Your task to perform on an android device: turn notification dots on Image 0: 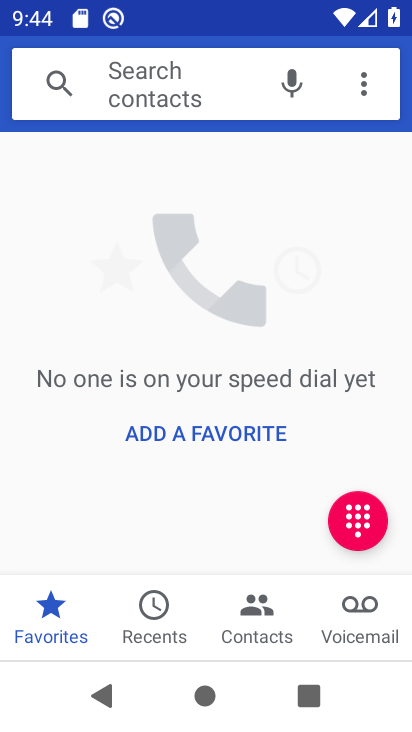
Step 0: press back button
Your task to perform on an android device: turn notification dots on Image 1: 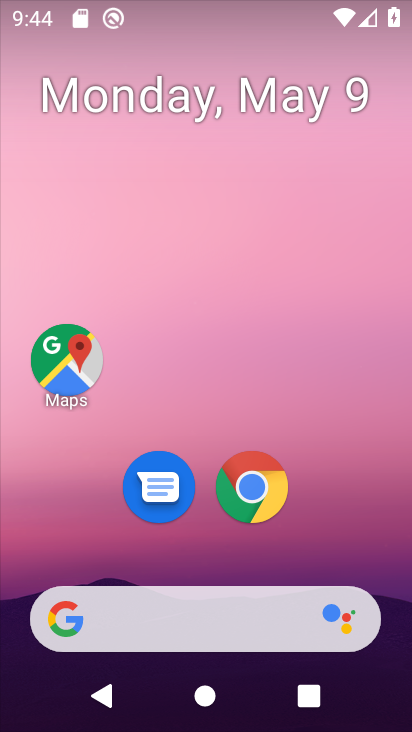
Step 1: drag from (325, 522) to (290, 36)
Your task to perform on an android device: turn notification dots on Image 2: 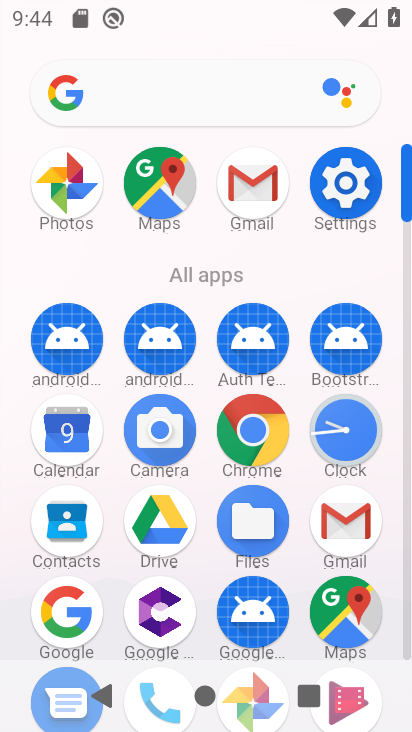
Step 2: drag from (9, 536) to (9, 248)
Your task to perform on an android device: turn notification dots on Image 3: 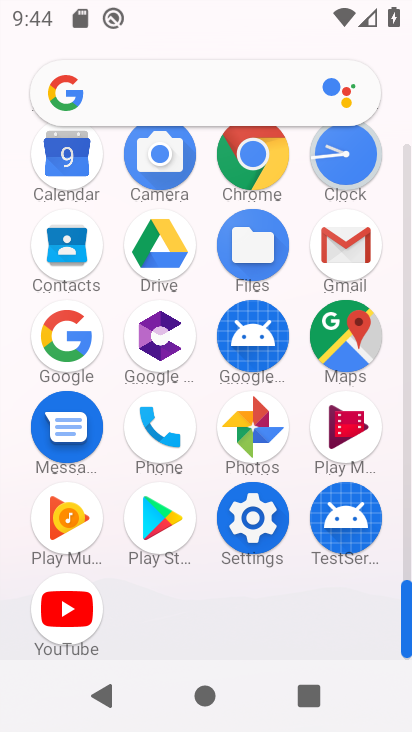
Step 3: click (248, 516)
Your task to perform on an android device: turn notification dots on Image 4: 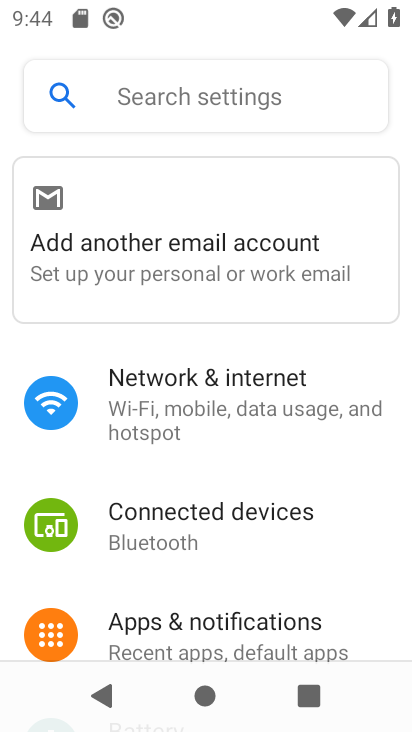
Step 4: drag from (316, 566) to (326, 221)
Your task to perform on an android device: turn notification dots on Image 5: 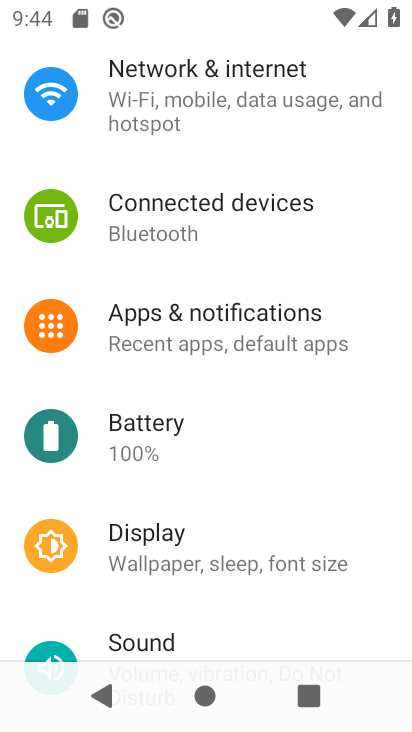
Step 5: drag from (318, 506) to (317, 143)
Your task to perform on an android device: turn notification dots on Image 6: 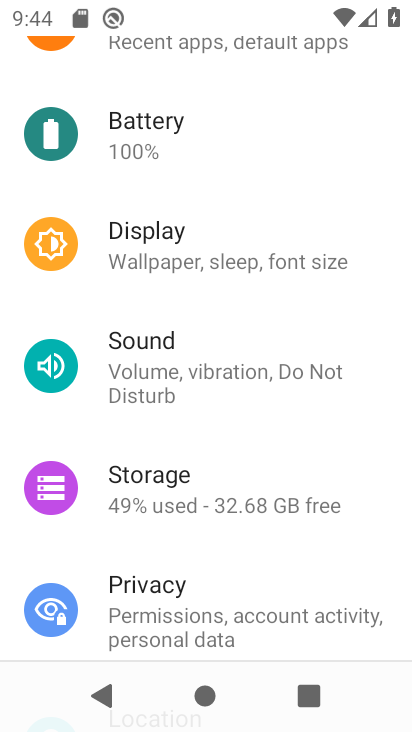
Step 6: drag from (289, 518) to (293, 125)
Your task to perform on an android device: turn notification dots on Image 7: 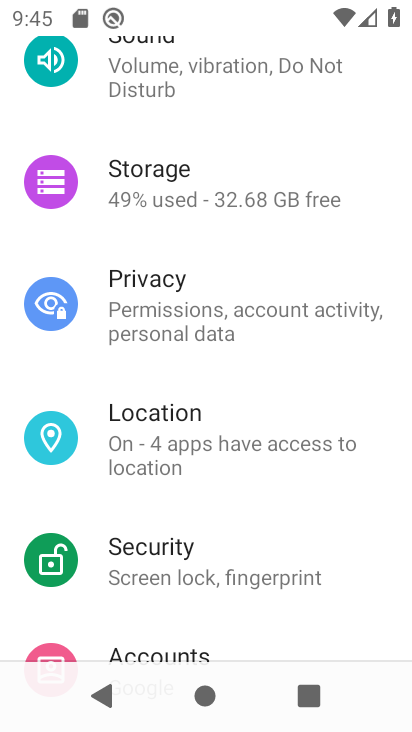
Step 7: drag from (306, 512) to (308, 203)
Your task to perform on an android device: turn notification dots on Image 8: 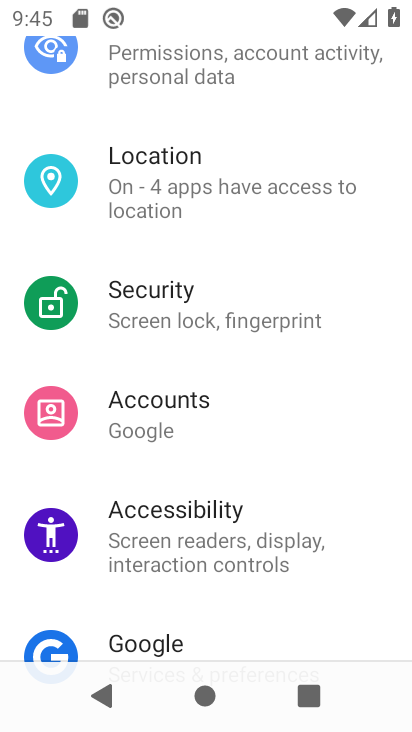
Step 8: drag from (309, 402) to (317, 125)
Your task to perform on an android device: turn notification dots on Image 9: 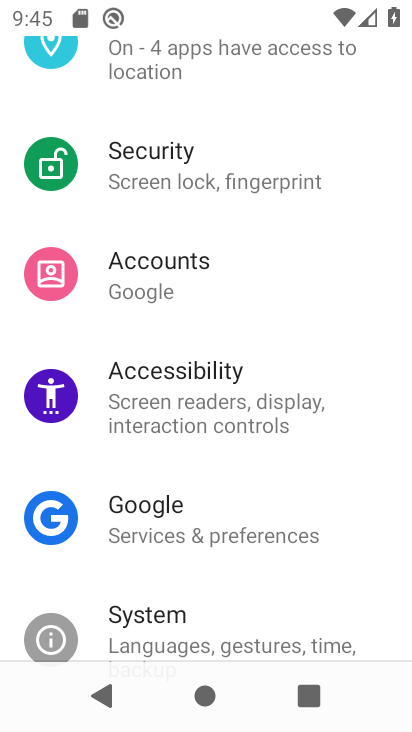
Step 9: drag from (303, 553) to (303, 174)
Your task to perform on an android device: turn notification dots on Image 10: 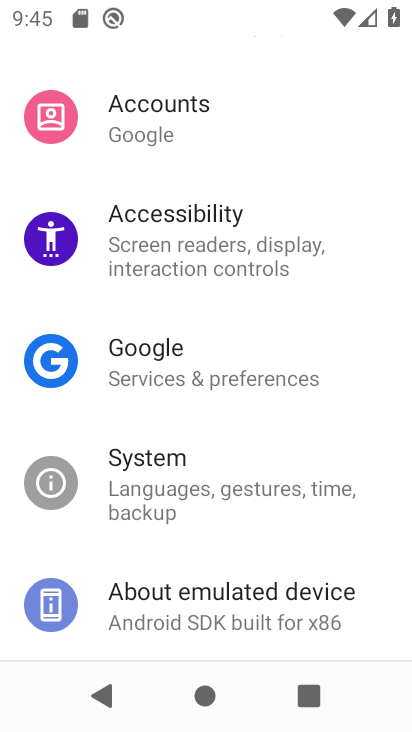
Step 10: drag from (267, 182) to (269, 528)
Your task to perform on an android device: turn notification dots on Image 11: 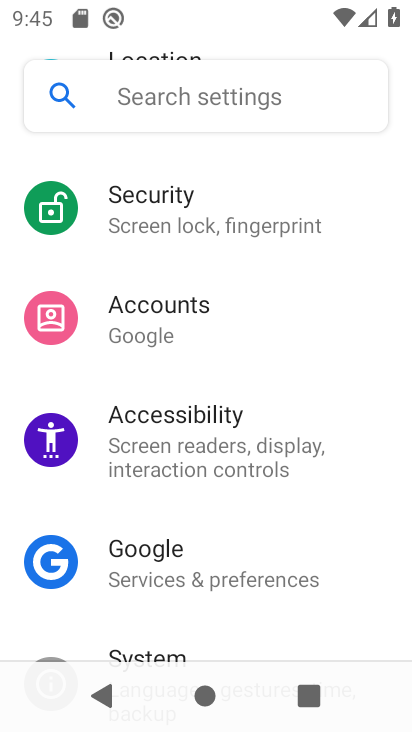
Step 11: drag from (295, 227) to (284, 502)
Your task to perform on an android device: turn notification dots on Image 12: 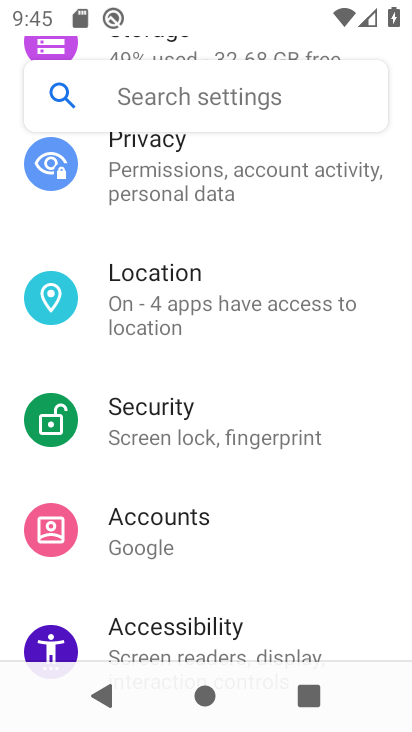
Step 12: drag from (323, 384) to (326, 562)
Your task to perform on an android device: turn notification dots on Image 13: 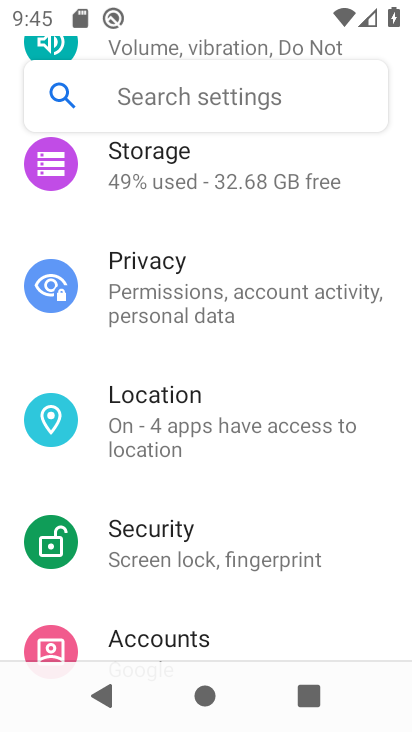
Step 13: drag from (309, 261) to (255, 516)
Your task to perform on an android device: turn notification dots on Image 14: 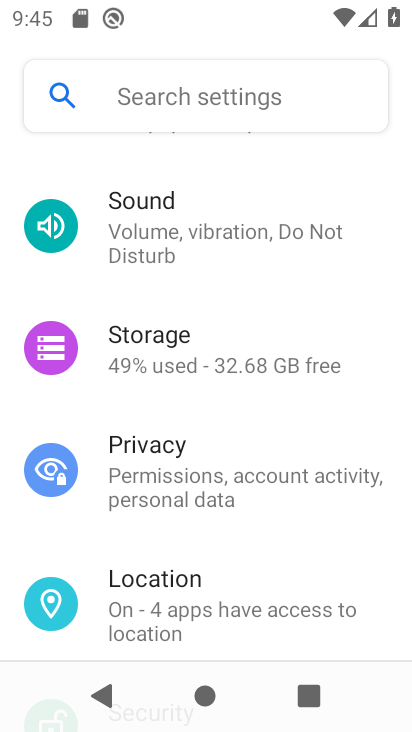
Step 14: drag from (267, 254) to (275, 578)
Your task to perform on an android device: turn notification dots on Image 15: 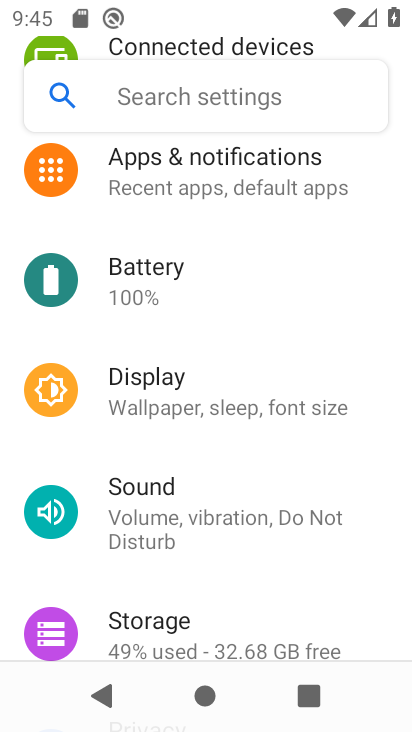
Step 15: click (257, 181)
Your task to perform on an android device: turn notification dots on Image 16: 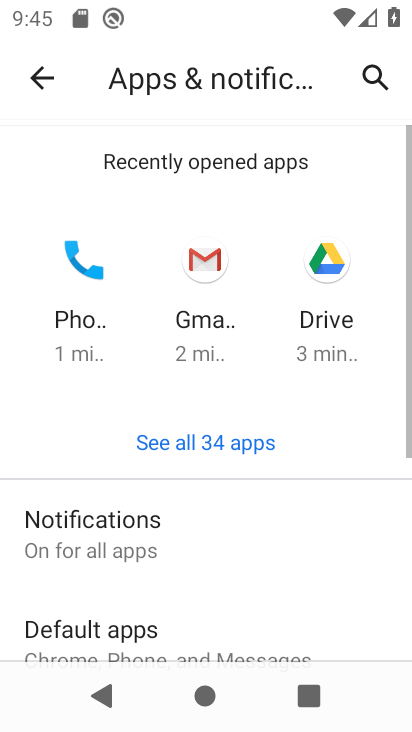
Step 16: drag from (249, 605) to (275, 153)
Your task to perform on an android device: turn notification dots on Image 17: 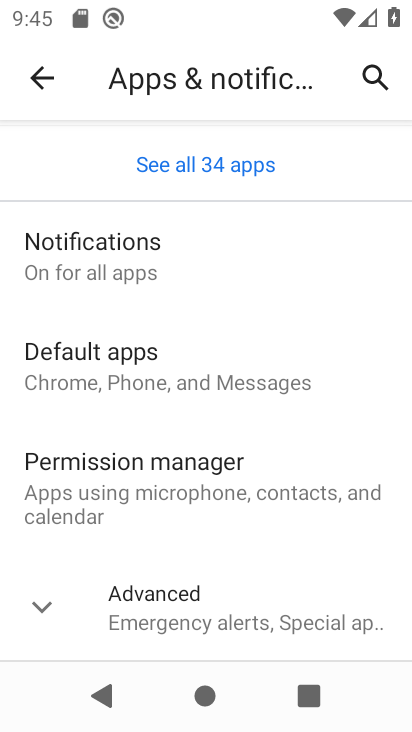
Step 17: click (59, 571)
Your task to perform on an android device: turn notification dots on Image 18: 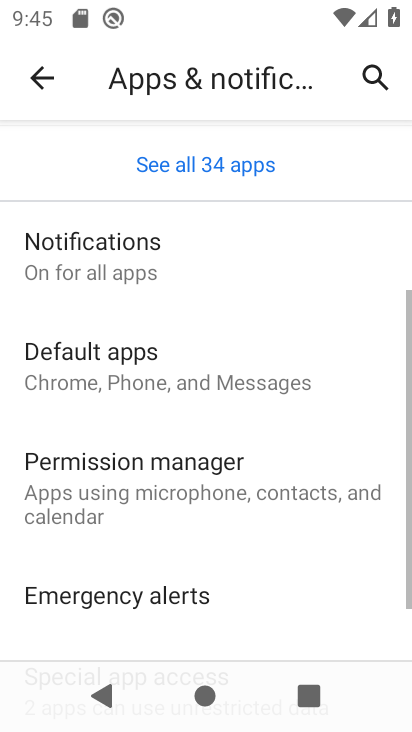
Step 18: drag from (289, 611) to (303, 219)
Your task to perform on an android device: turn notification dots on Image 19: 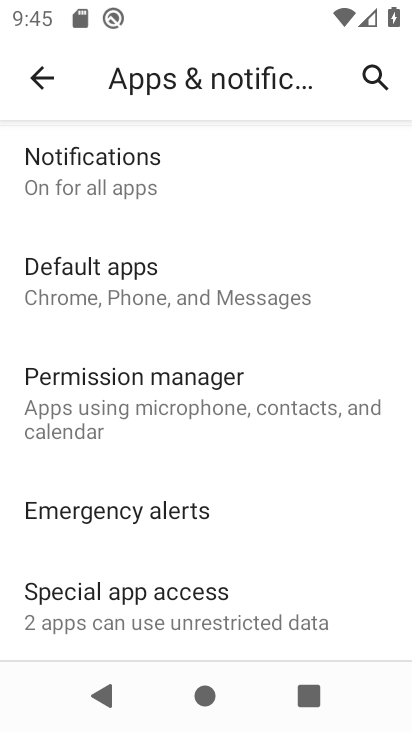
Step 19: click (167, 185)
Your task to perform on an android device: turn notification dots on Image 20: 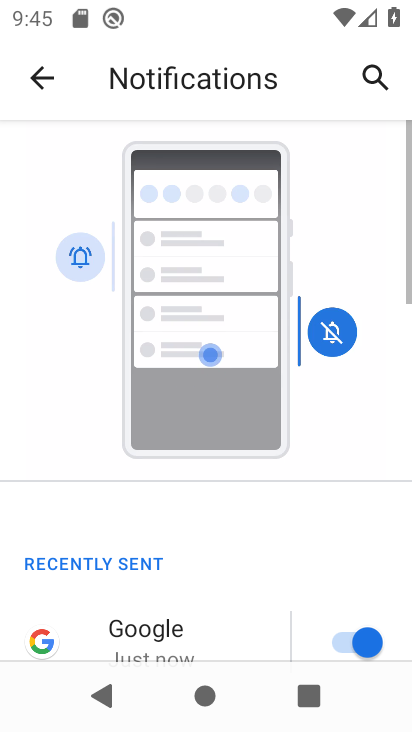
Step 20: drag from (190, 638) to (269, 108)
Your task to perform on an android device: turn notification dots on Image 21: 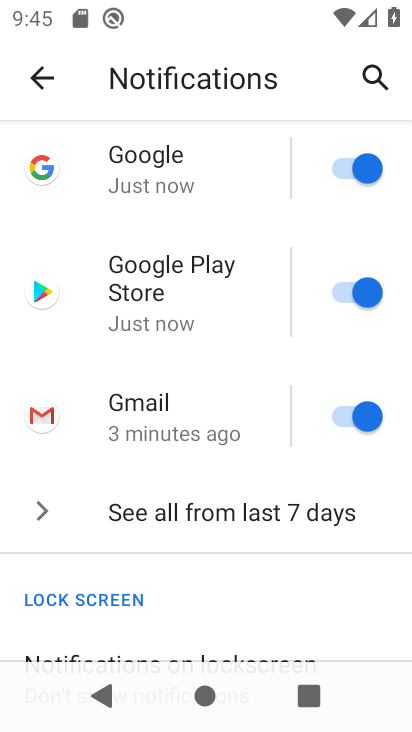
Step 21: drag from (220, 541) to (211, 144)
Your task to perform on an android device: turn notification dots on Image 22: 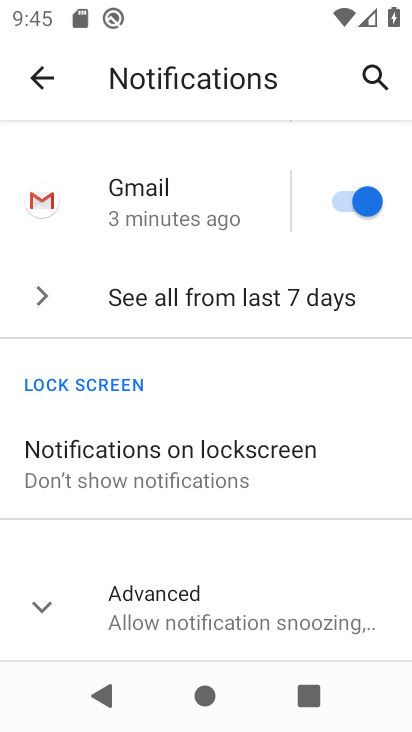
Step 22: click (51, 608)
Your task to perform on an android device: turn notification dots on Image 23: 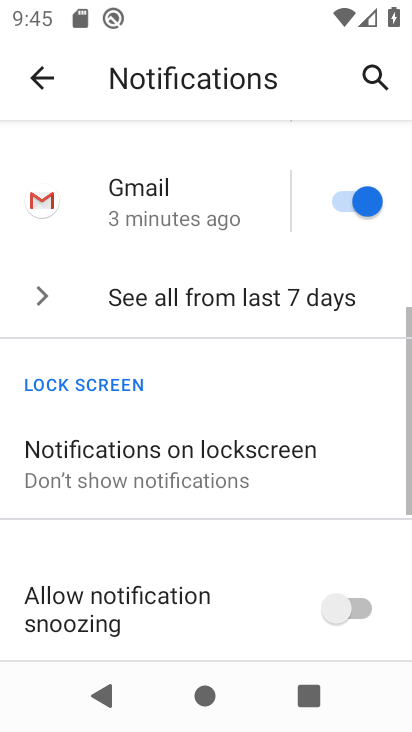
Step 23: task complete